Your task to perform on an android device: What's on my calendar today? Image 0: 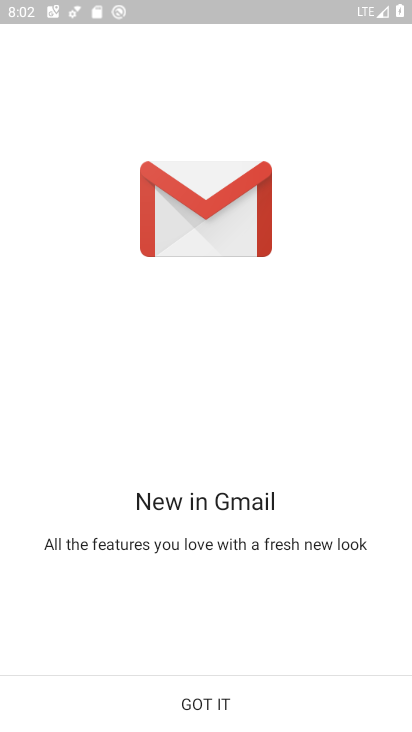
Step 0: click (214, 697)
Your task to perform on an android device: What's on my calendar today? Image 1: 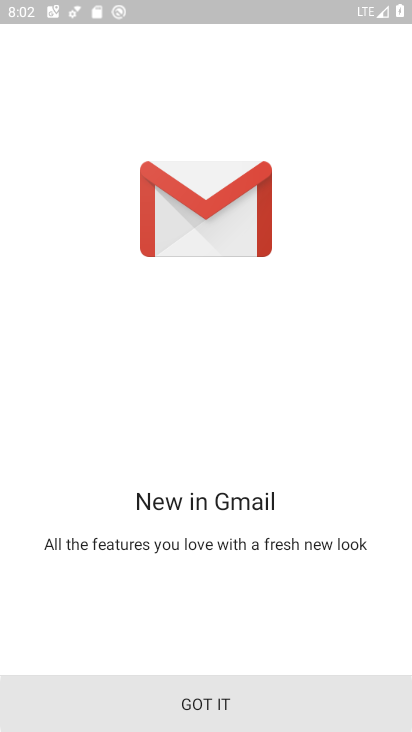
Step 1: press home button
Your task to perform on an android device: What's on my calendar today? Image 2: 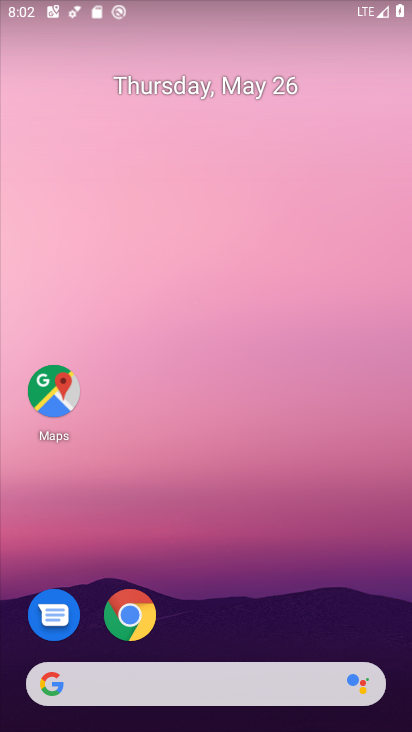
Step 2: drag from (202, 641) to (226, 172)
Your task to perform on an android device: What's on my calendar today? Image 3: 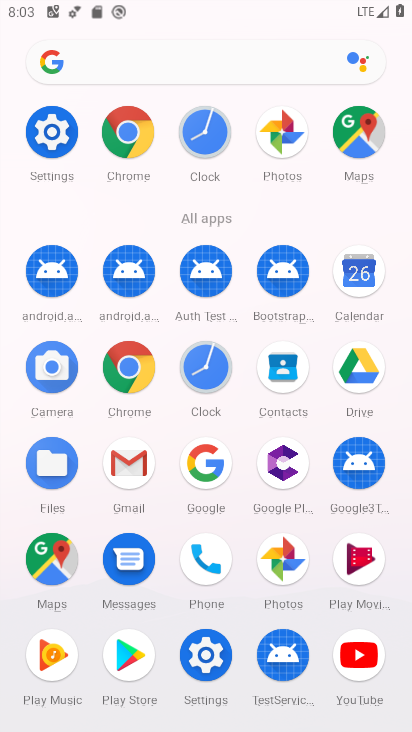
Step 3: click (358, 275)
Your task to perform on an android device: What's on my calendar today? Image 4: 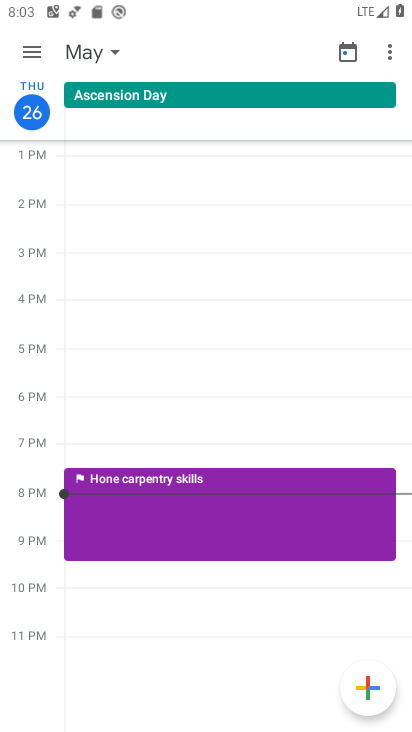
Step 4: drag from (40, 417) to (64, 145)
Your task to perform on an android device: What's on my calendar today? Image 5: 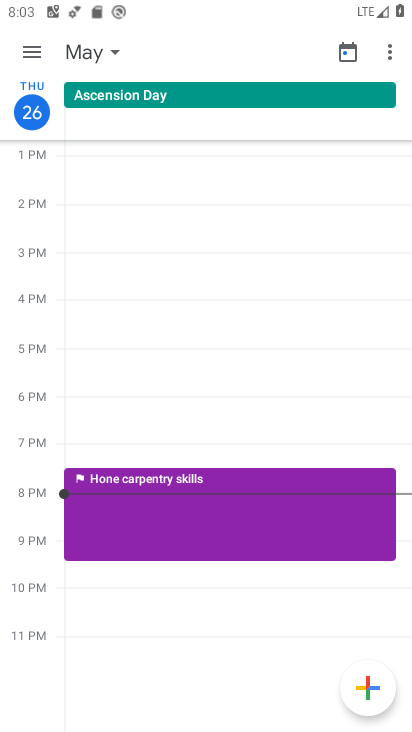
Step 5: click (32, 44)
Your task to perform on an android device: What's on my calendar today? Image 6: 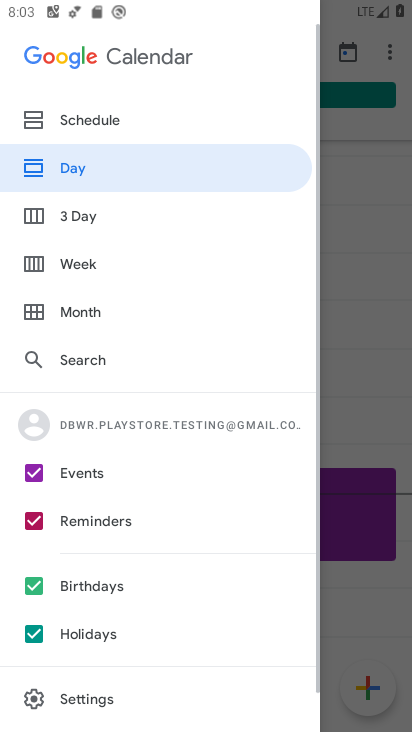
Step 6: click (92, 314)
Your task to perform on an android device: What's on my calendar today? Image 7: 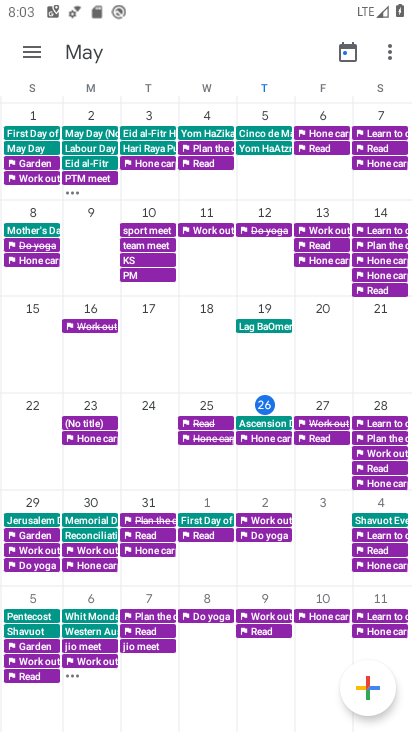
Step 7: click (357, 413)
Your task to perform on an android device: What's on my calendar today? Image 8: 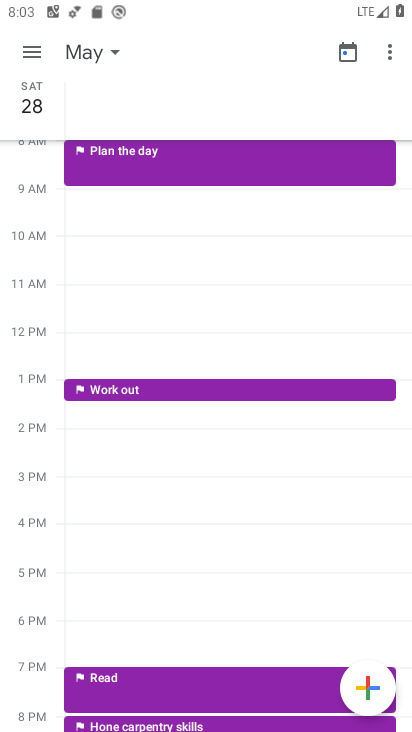
Step 8: task complete